Your task to perform on an android device: turn vacation reply on in the gmail app Image 0: 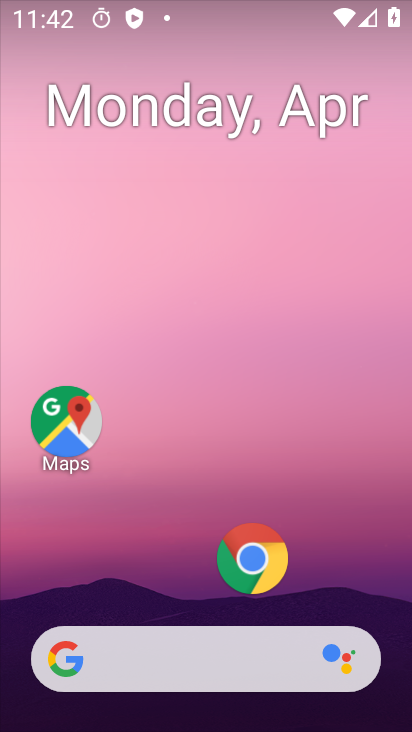
Step 0: drag from (223, 602) to (295, 7)
Your task to perform on an android device: turn vacation reply on in the gmail app Image 1: 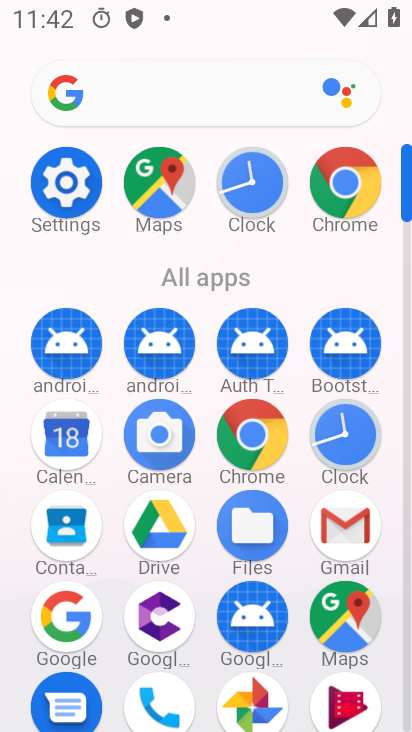
Step 1: click (354, 522)
Your task to perform on an android device: turn vacation reply on in the gmail app Image 2: 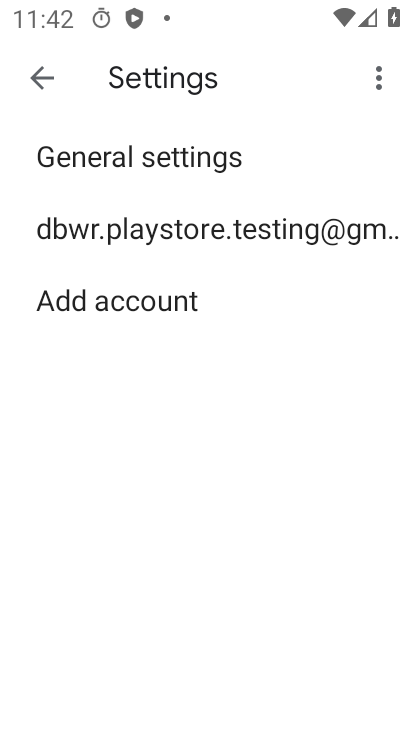
Step 2: click (143, 220)
Your task to perform on an android device: turn vacation reply on in the gmail app Image 3: 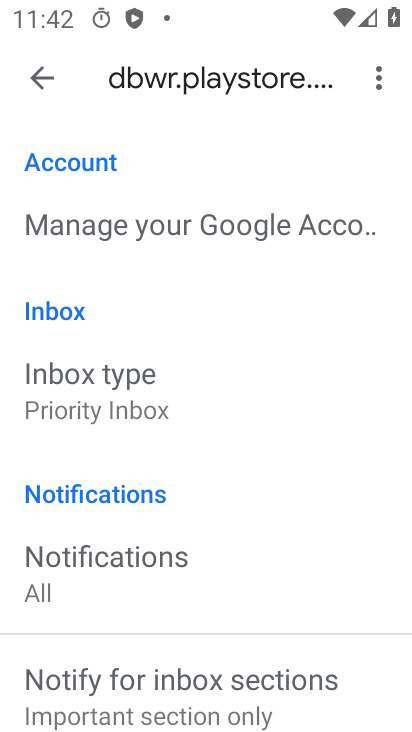
Step 3: drag from (181, 582) to (213, 185)
Your task to perform on an android device: turn vacation reply on in the gmail app Image 4: 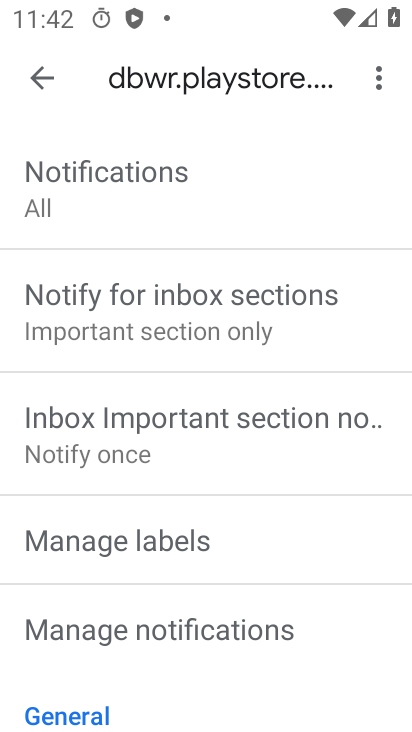
Step 4: drag from (194, 582) to (210, 348)
Your task to perform on an android device: turn vacation reply on in the gmail app Image 5: 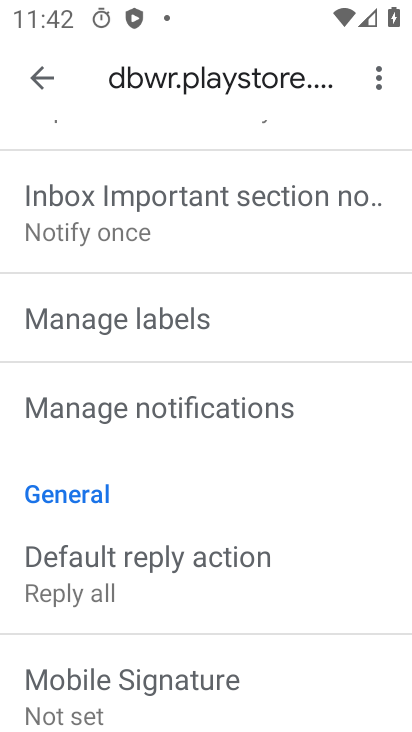
Step 5: drag from (117, 634) to (135, 305)
Your task to perform on an android device: turn vacation reply on in the gmail app Image 6: 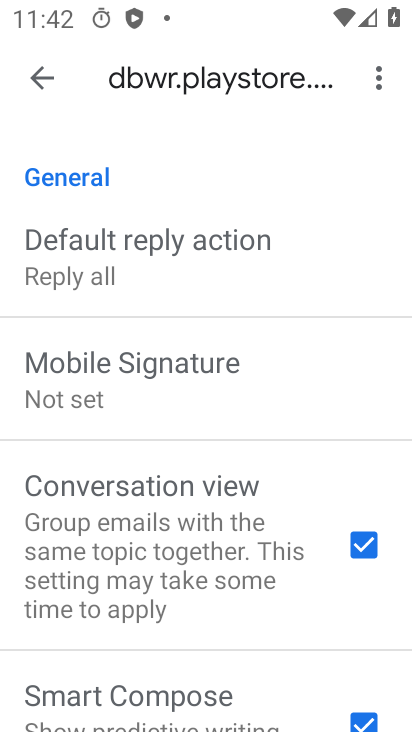
Step 6: drag from (91, 658) to (122, 267)
Your task to perform on an android device: turn vacation reply on in the gmail app Image 7: 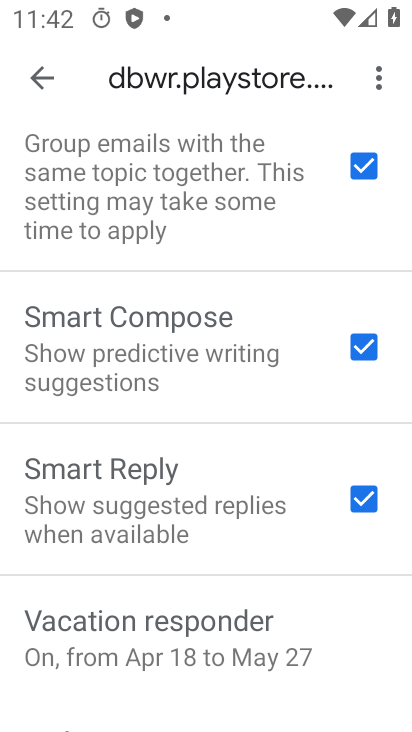
Step 7: click (82, 653)
Your task to perform on an android device: turn vacation reply on in the gmail app Image 8: 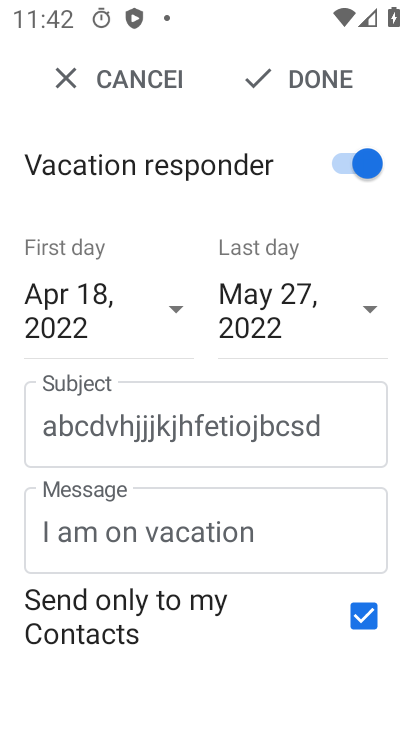
Step 8: task complete